Your task to perform on an android device: check the backup settings in the google photos Image 0: 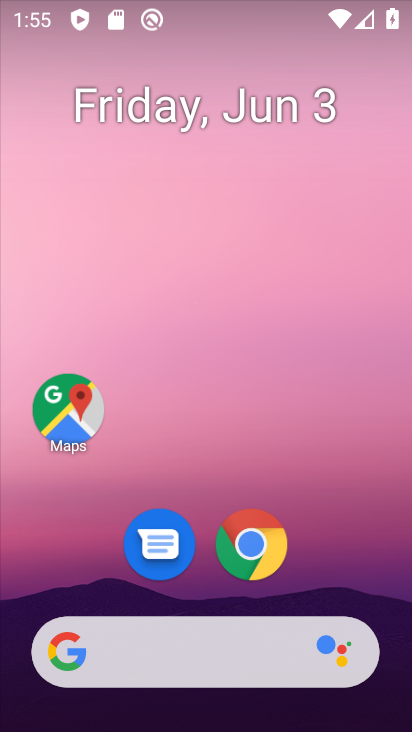
Step 0: press home button
Your task to perform on an android device: check the backup settings in the google photos Image 1: 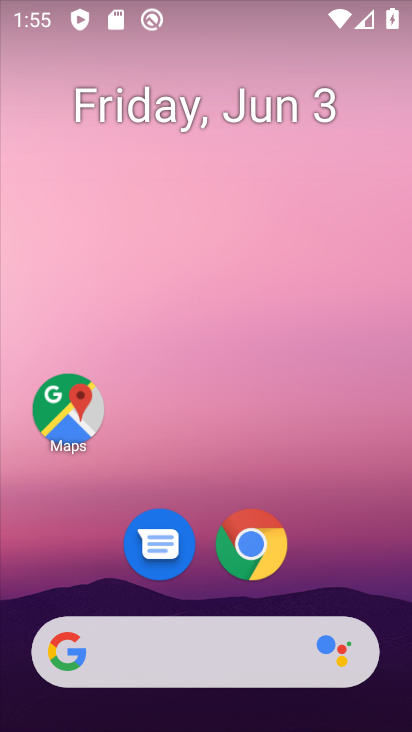
Step 1: drag from (371, 500) to (334, 160)
Your task to perform on an android device: check the backup settings in the google photos Image 2: 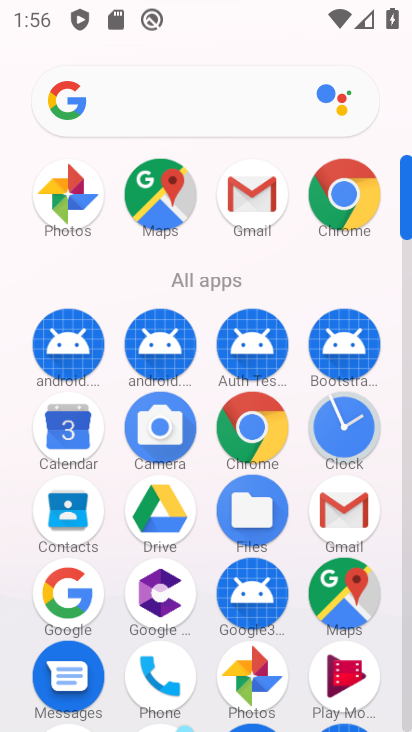
Step 2: click (273, 688)
Your task to perform on an android device: check the backup settings in the google photos Image 3: 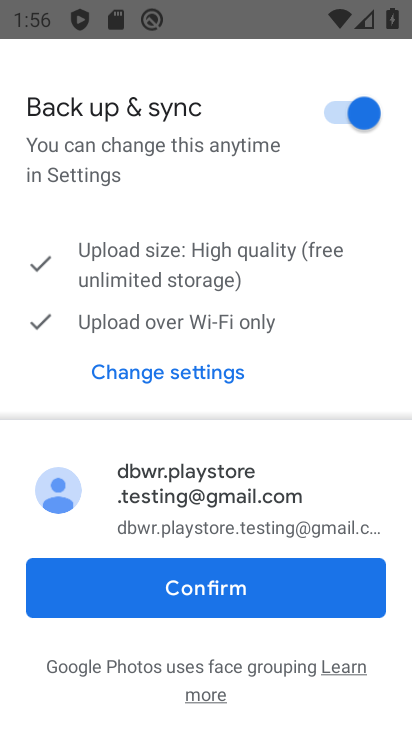
Step 3: click (205, 597)
Your task to perform on an android device: check the backup settings in the google photos Image 4: 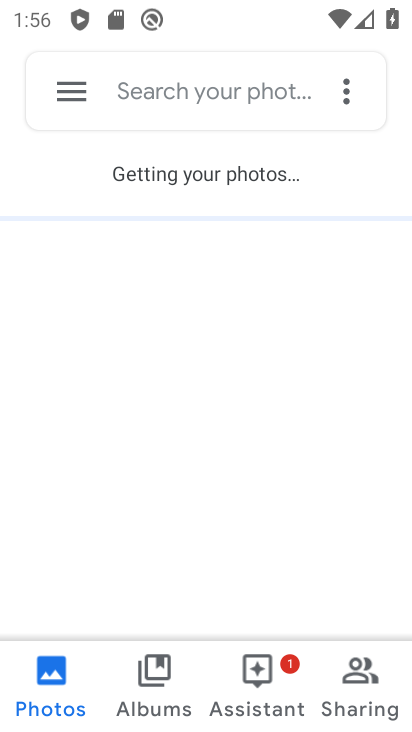
Step 4: click (81, 73)
Your task to perform on an android device: check the backup settings in the google photos Image 5: 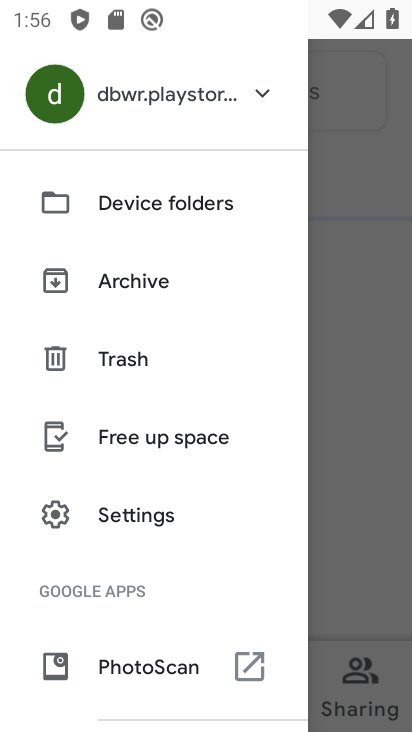
Step 5: click (153, 509)
Your task to perform on an android device: check the backup settings in the google photos Image 6: 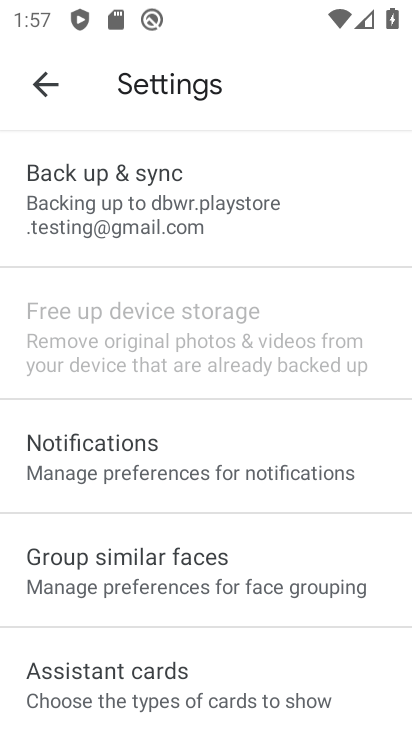
Step 6: click (223, 226)
Your task to perform on an android device: check the backup settings in the google photos Image 7: 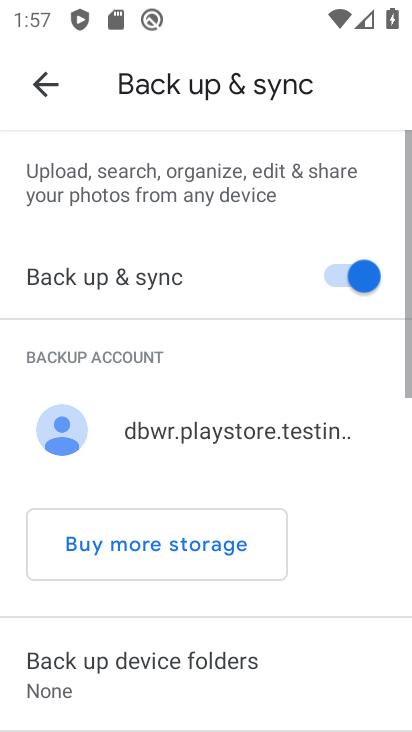
Step 7: task complete